Your task to perform on an android device: check data usage Image 0: 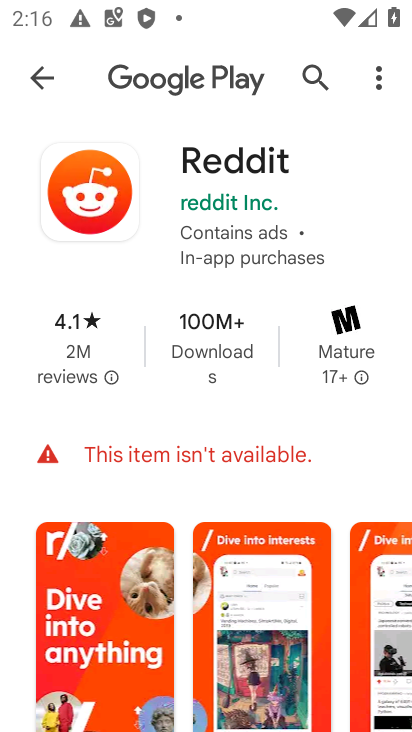
Step 0: press home button
Your task to perform on an android device: check data usage Image 1: 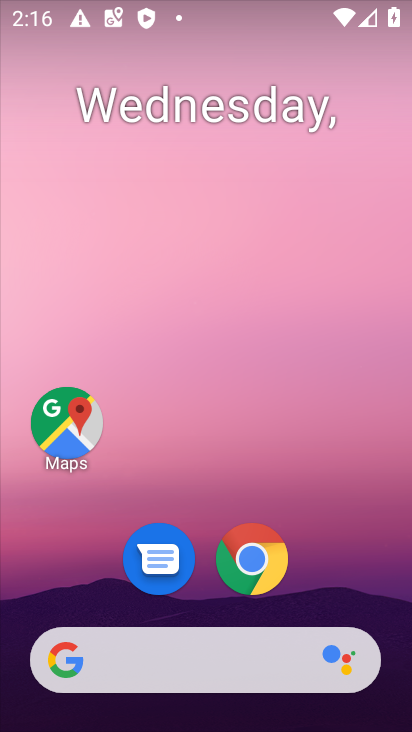
Step 1: drag from (213, 622) to (212, 22)
Your task to perform on an android device: check data usage Image 2: 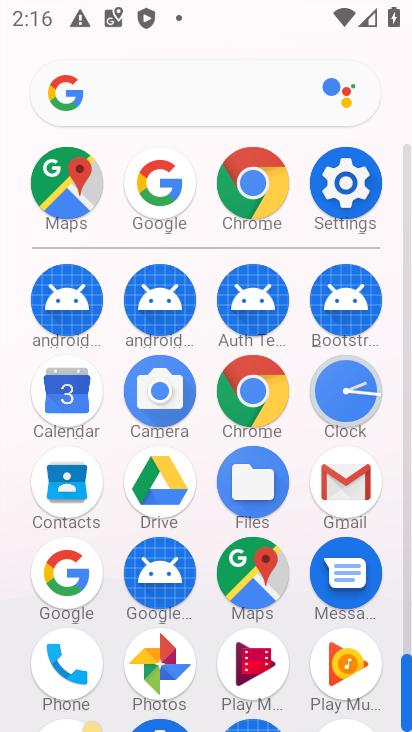
Step 2: click (337, 171)
Your task to perform on an android device: check data usage Image 3: 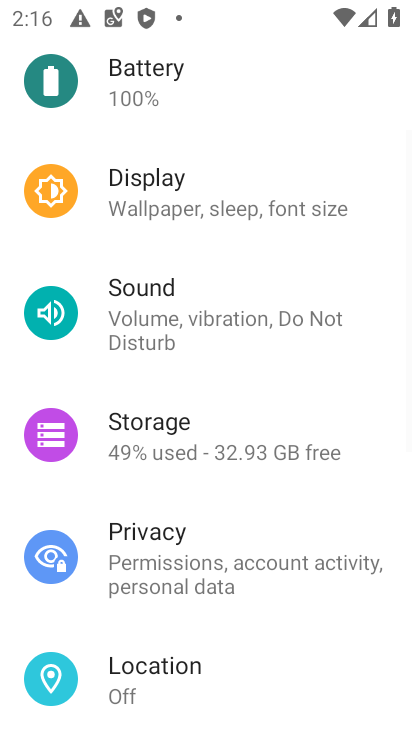
Step 3: drag from (195, 136) to (190, 579)
Your task to perform on an android device: check data usage Image 4: 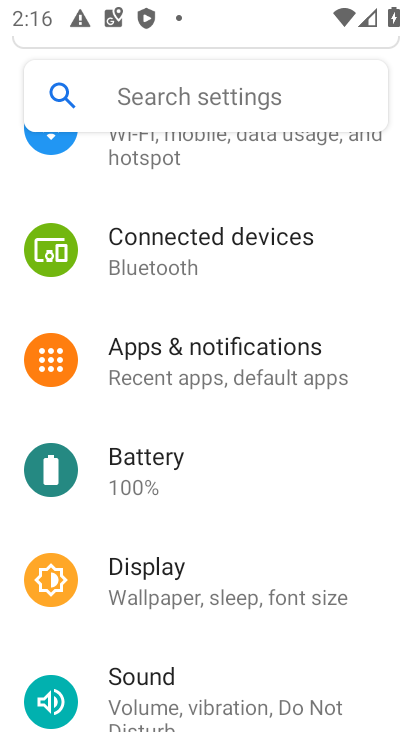
Step 4: drag from (203, 197) to (227, 660)
Your task to perform on an android device: check data usage Image 5: 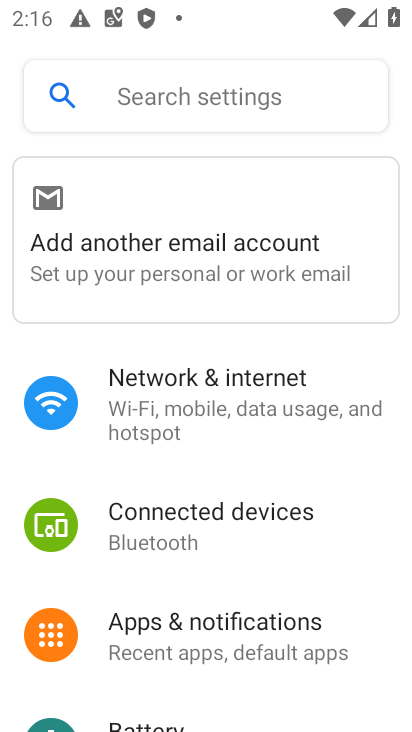
Step 5: click (184, 386)
Your task to perform on an android device: check data usage Image 6: 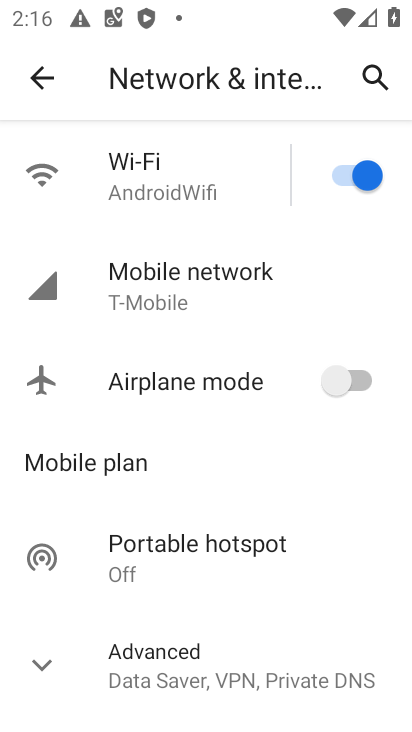
Step 6: click (154, 288)
Your task to perform on an android device: check data usage Image 7: 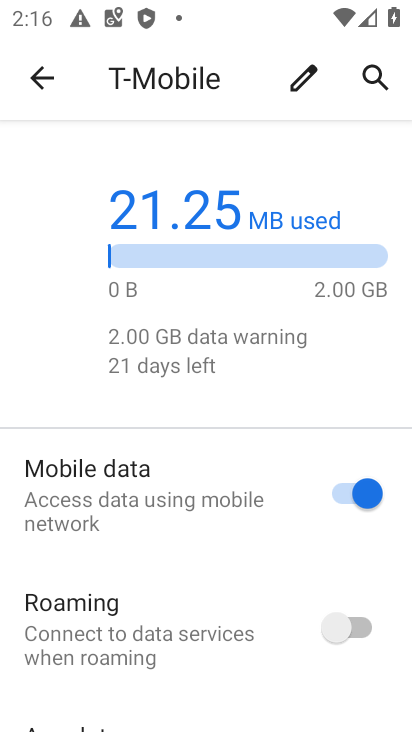
Step 7: drag from (159, 598) to (170, 420)
Your task to perform on an android device: check data usage Image 8: 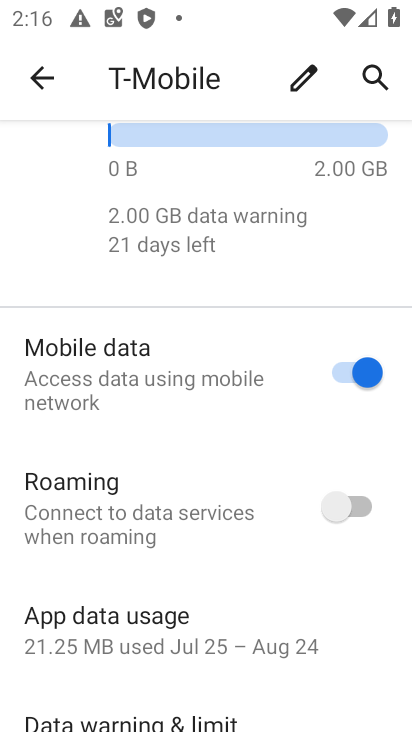
Step 8: click (103, 622)
Your task to perform on an android device: check data usage Image 9: 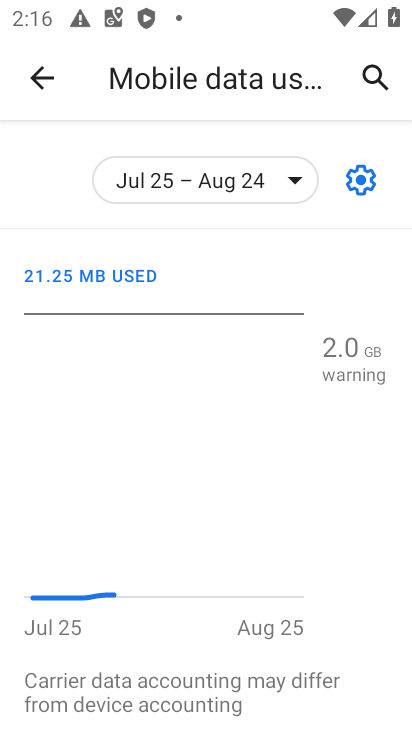
Step 9: task complete